Your task to perform on an android device: Open sound settings Image 0: 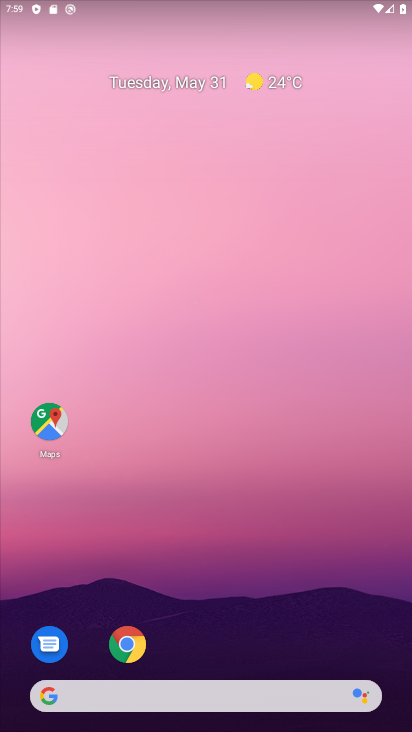
Step 0: drag from (265, 643) to (297, 288)
Your task to perform on an android device: Open sound settings Image 1: 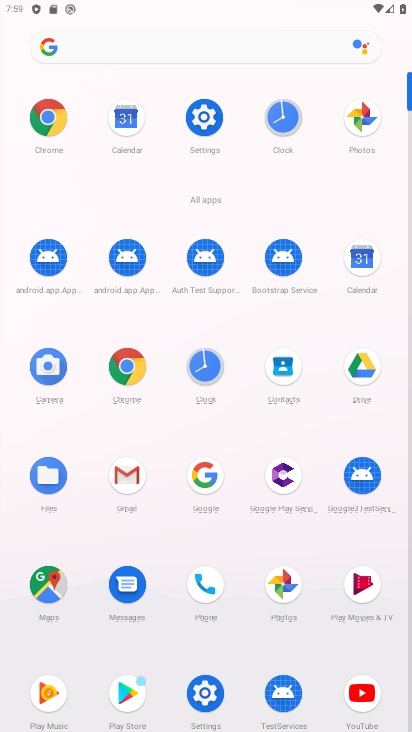
Step 1: click (215, 127)
Your task to perform on an android device: Open sound settings Image 2: 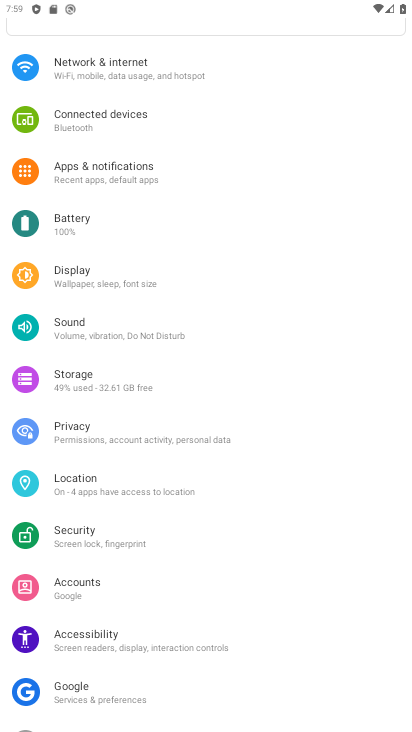
Step 2: click (119, 317)
Your task to perform on an android device: Open sound settings Image 3: 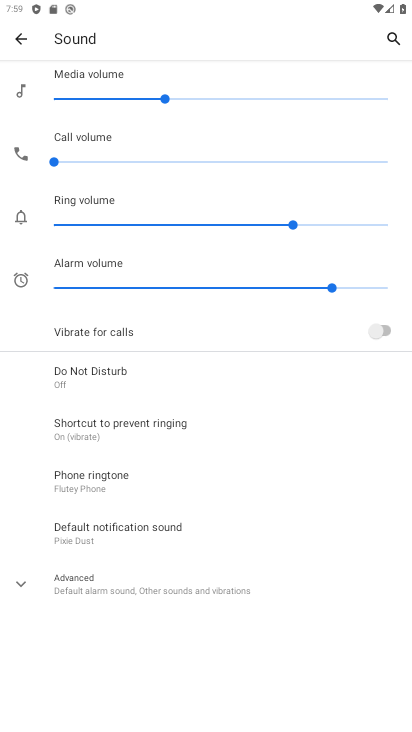
Step 3: click (112, 329)
Your task to perform on an android device: Open sound settings Image 4: 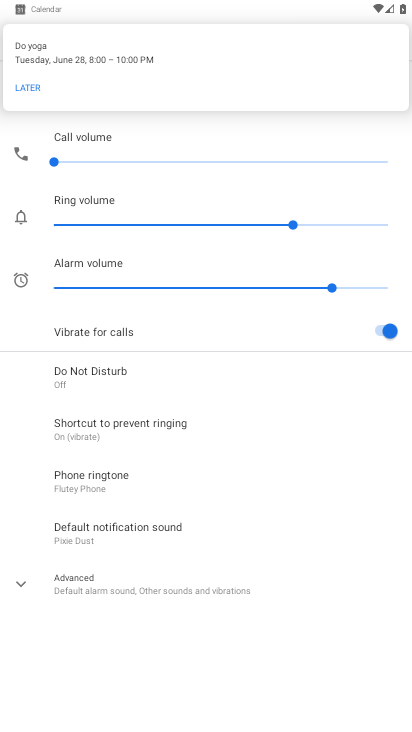
Step 4: task complete